Your task to perform on an android device: turn off notifications in google photos Image 0: 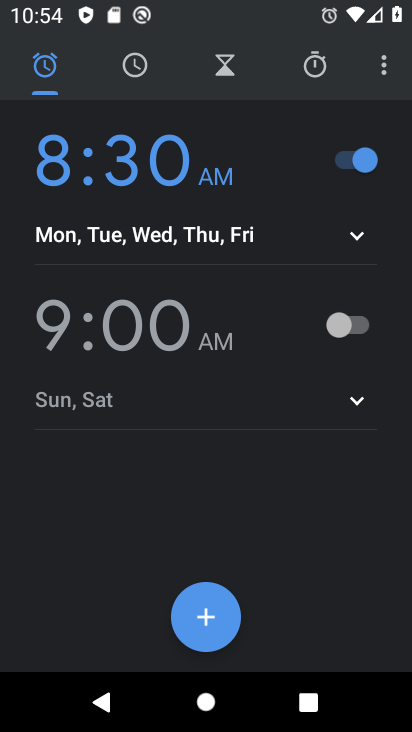
Step 0: press home button
Your task to perform on an android device: turn off notifications in google photos Image 1: 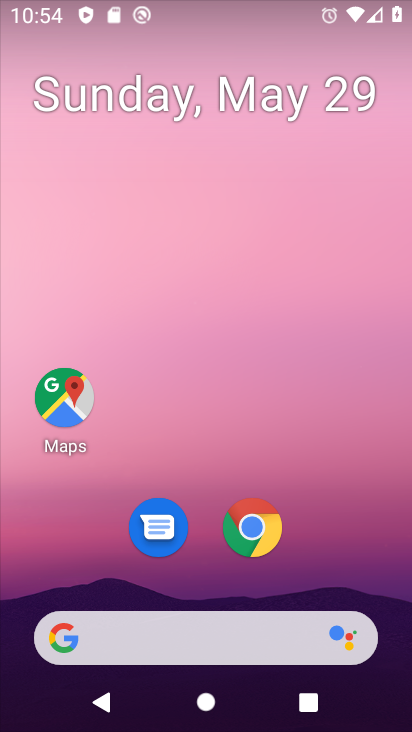
Step 1: drag from (197, 592) to (196, 142)
Your task to perform on an android device: turn off notifications in google photos Image 2: 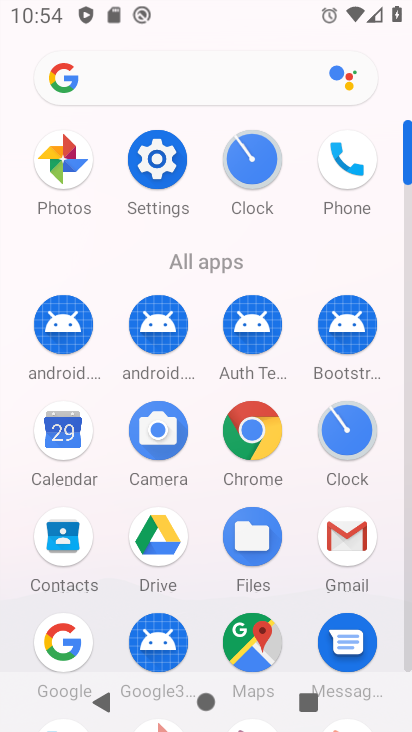
Step 2: click (47, 151)
Your task to perform on an android device: turn off notifications in google photos Image 3: 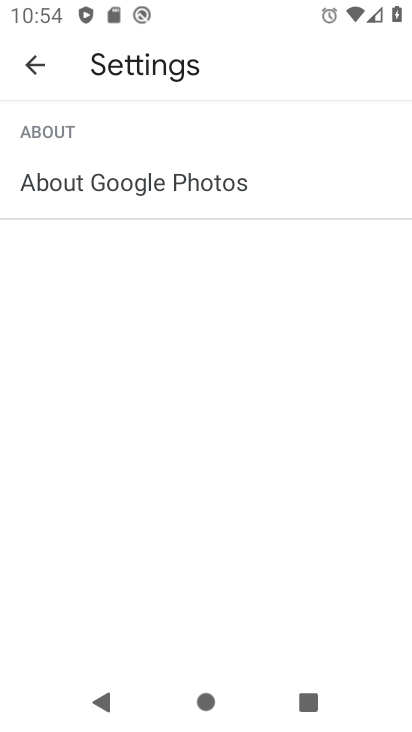
Step 3: click (42, 54)
Your task to perform on an android device: turn off notifications in google photos Image 4: 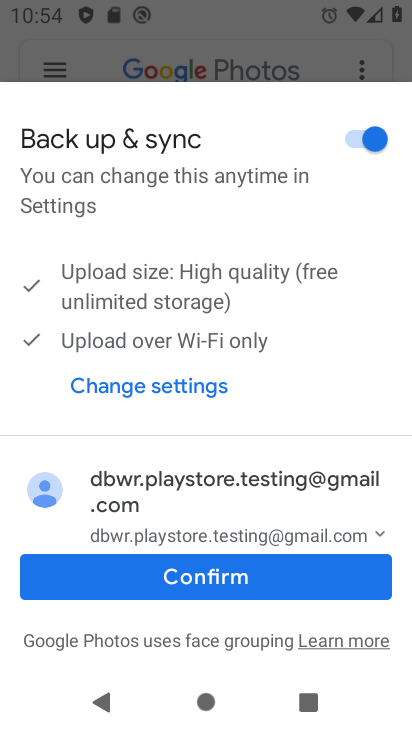
Step 4: click (242, 556)
Your task to perform on an android device: turn off notifications in google photos Image 5: 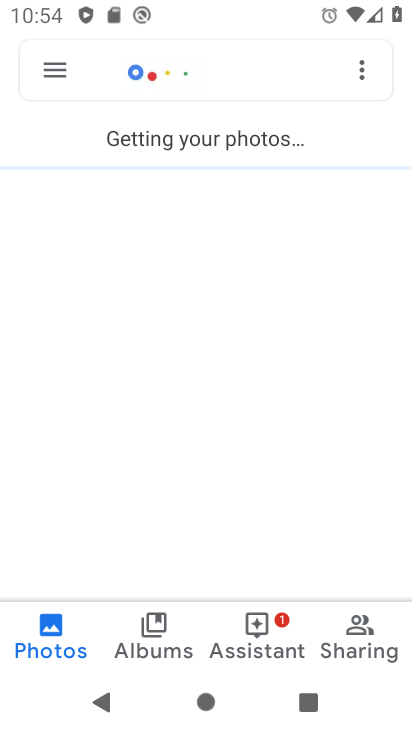
Step 5: click (56, 59)
Your task to perform on an android device: turn off notifications in google photos Image 6: 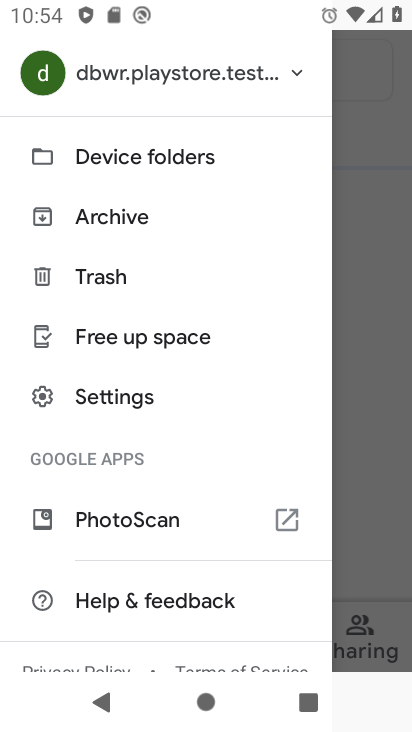
Step 6: click (130, 391)
Your task to perform on an android device: turn off notifications in google photos Image 7: 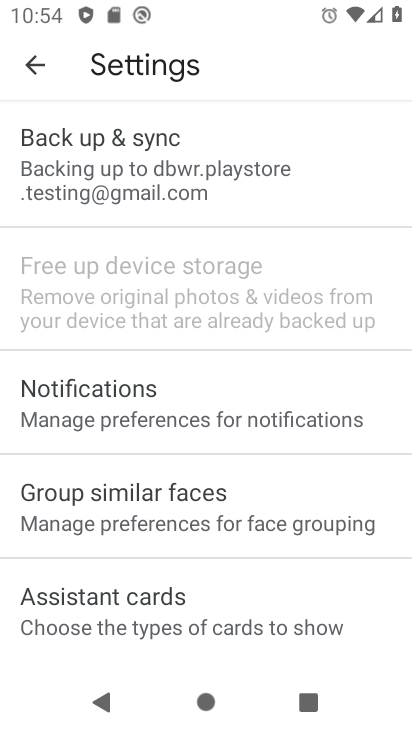
Step 7: drag from (146, 527) to (210, 279)
Your task to perform on an android device: turn off notifications in google photos Image 8: 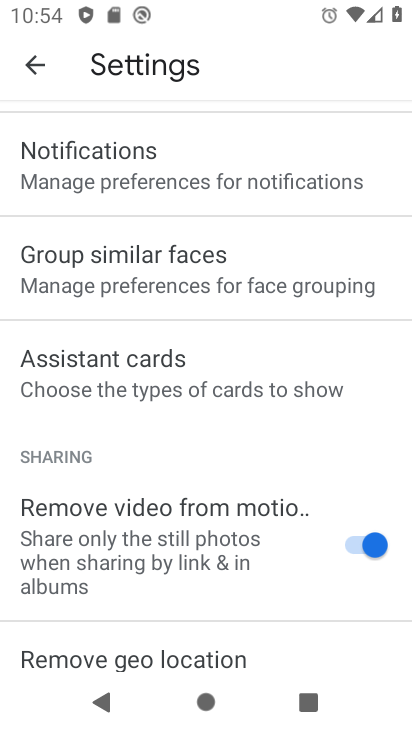
Step 8: click (183, 198)
Your task to perform on an android device: turn off notifications in google photos Image 9: 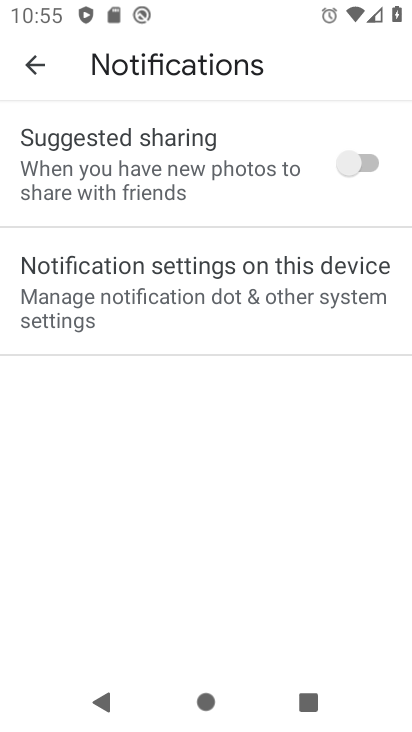
Step 9: click (269, 281)
Your task to perform on an android device: turn off notifications in google photos Image 10: 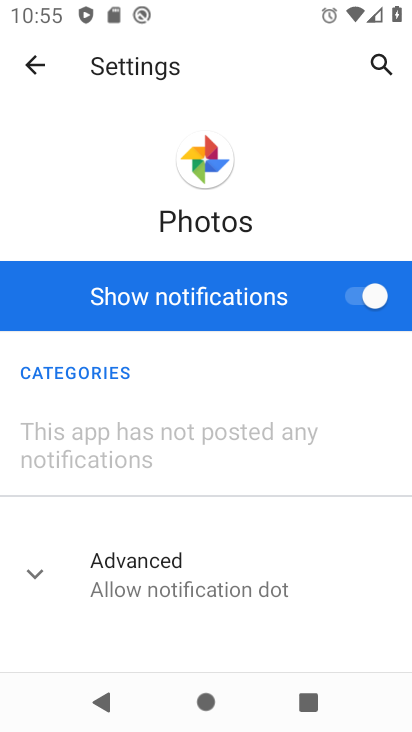
Step 10: click (359, 290)
Your task to perform on an android device: turn off notifications in google photos Image 11: 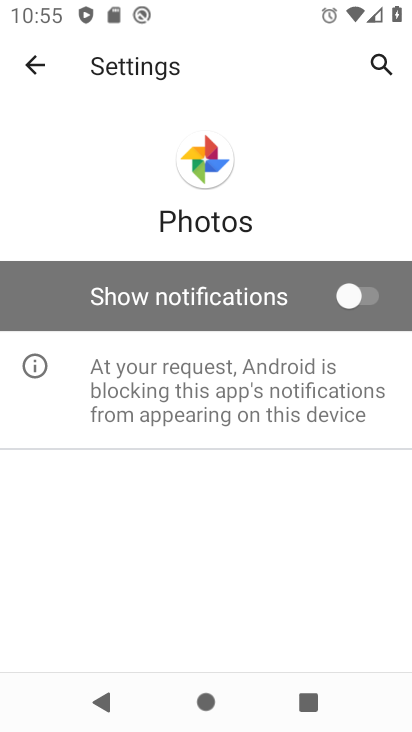
Step 11: task complete